Your task to perform on an android device: Is it going to rain today? Image 0: 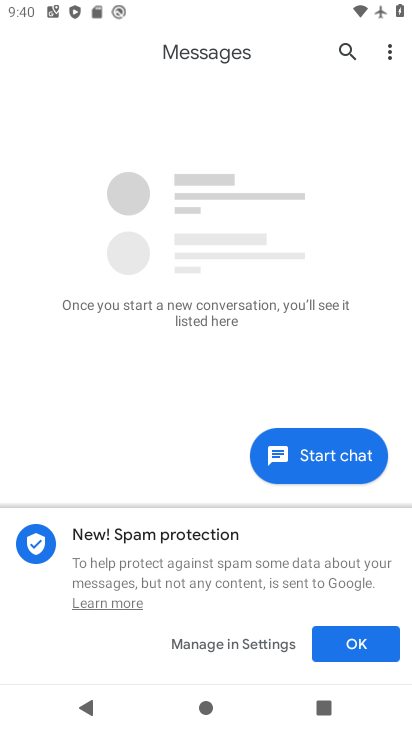
Step 0: press home button
Your task to perform on an android device: Is it going to rain today? Image 1: 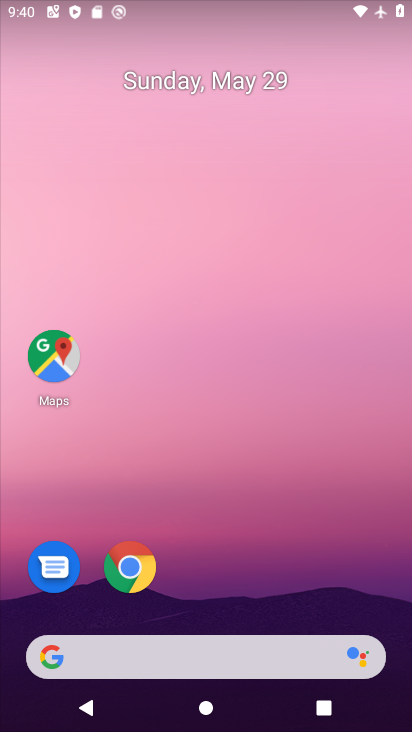
Step 1: drag from (5, 137) to (376, 168)
Your task to perform on an android device: Is it going to rain today? Image 2: 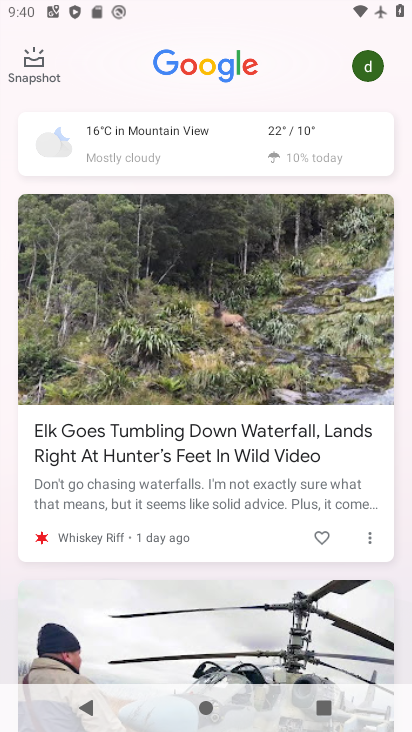
Step 2: click (297, 132)
Your task to perform on an android device: Is it going to rain today? Image 3: 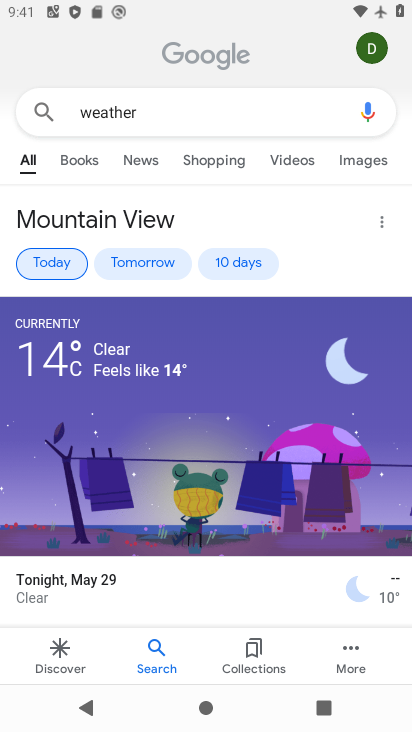
Step 3: task complete